Your task to perform on an android device: What is the capital of Germany? Image 0: 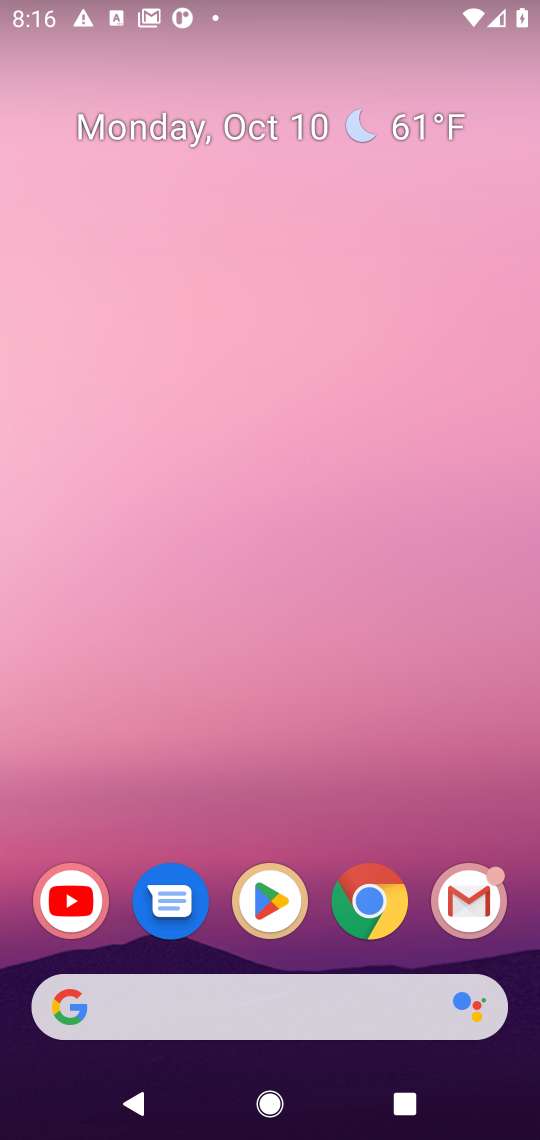
Step 0: click (277, 988)
Your task to perform on an android device: What is the capital of Germany? Image 1: 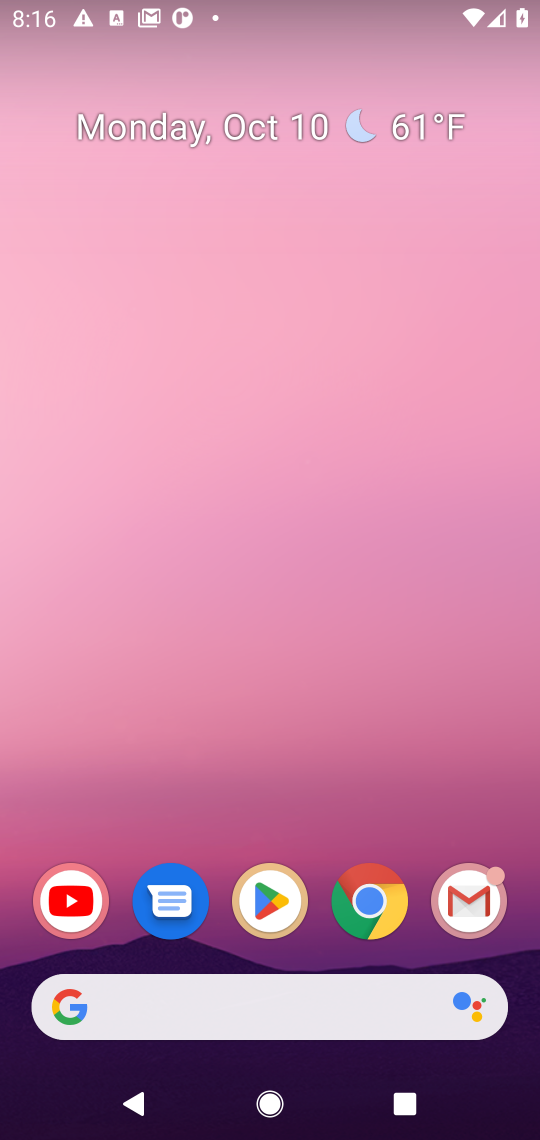
Step 1: click (277, 990)
Your task to perform on an android device: What is the capital of Germany? Image 2: 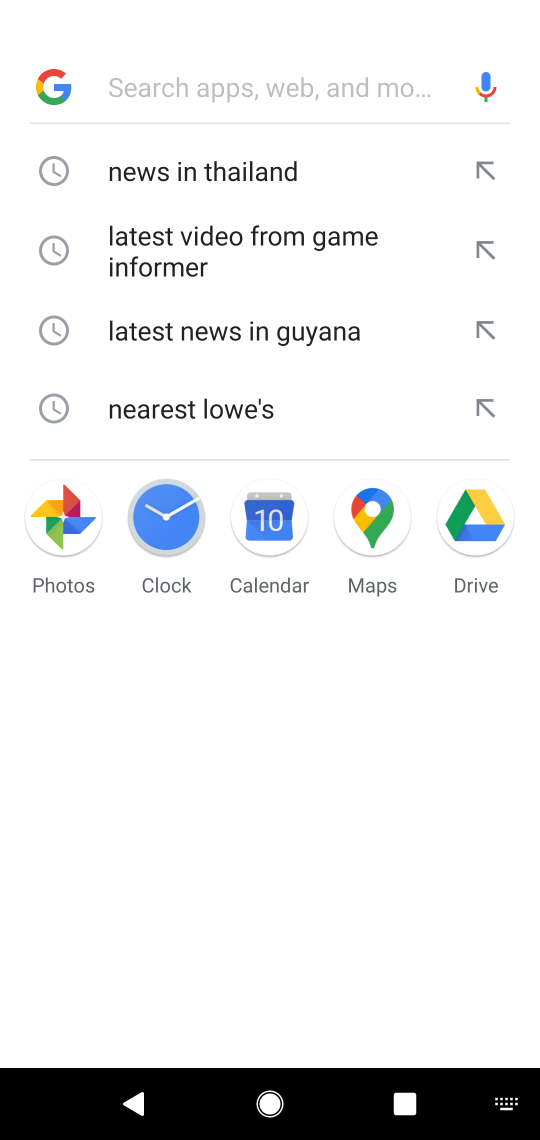
Step 2: type "the capital of Germany"
Your task to perform on an android device: What is the capital of Germany? Image 3: 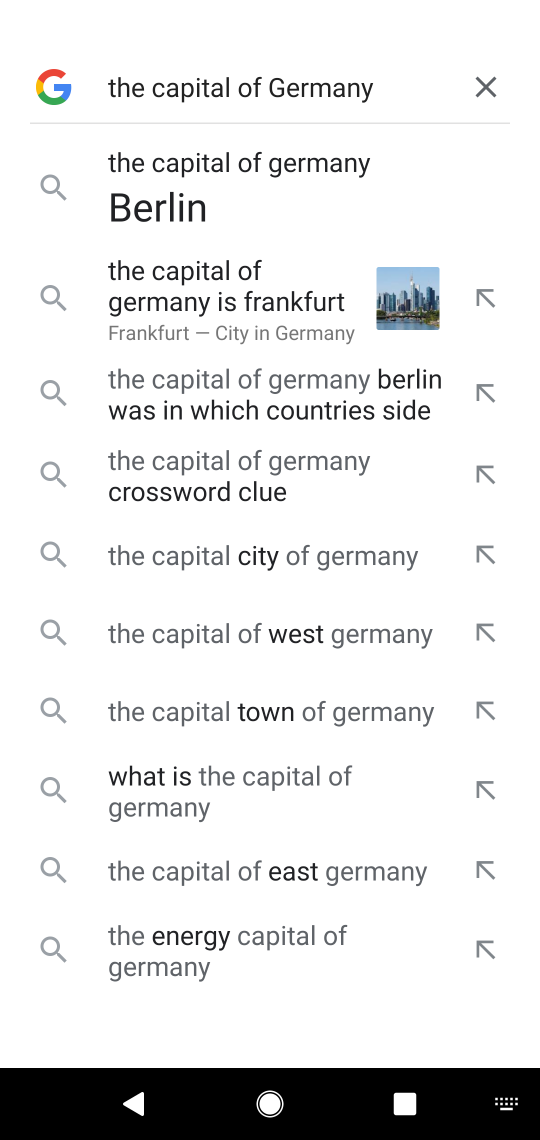
Step 3: click (198, 187)
Your task to perform on an android device: What is the capital of Germany? Image 4: 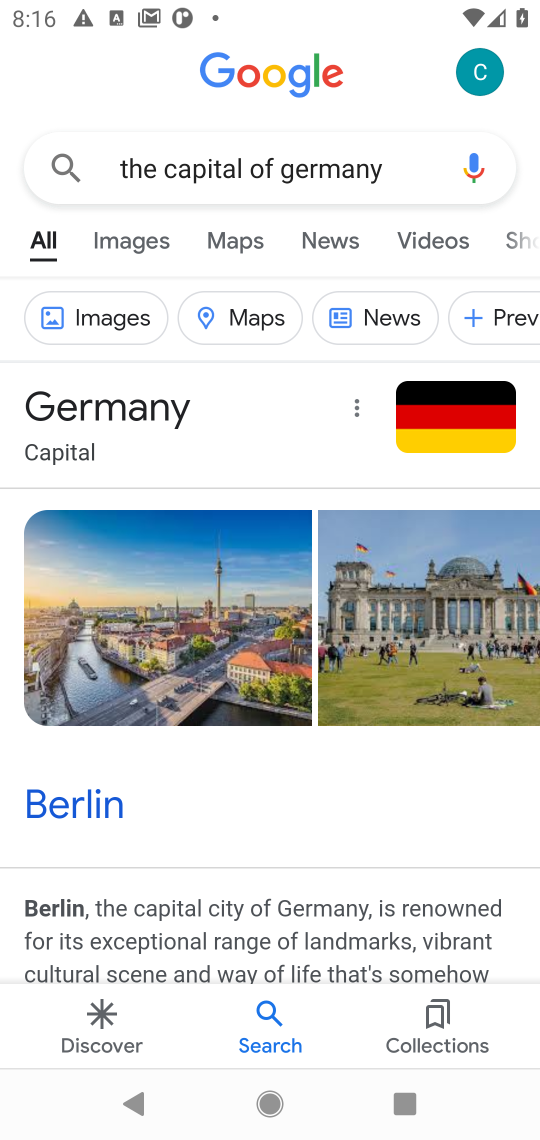
Step 4: drag from (294, 797) to (341, 357)
Your task to perform on an android device: What is the capital of Germany? Image 5: 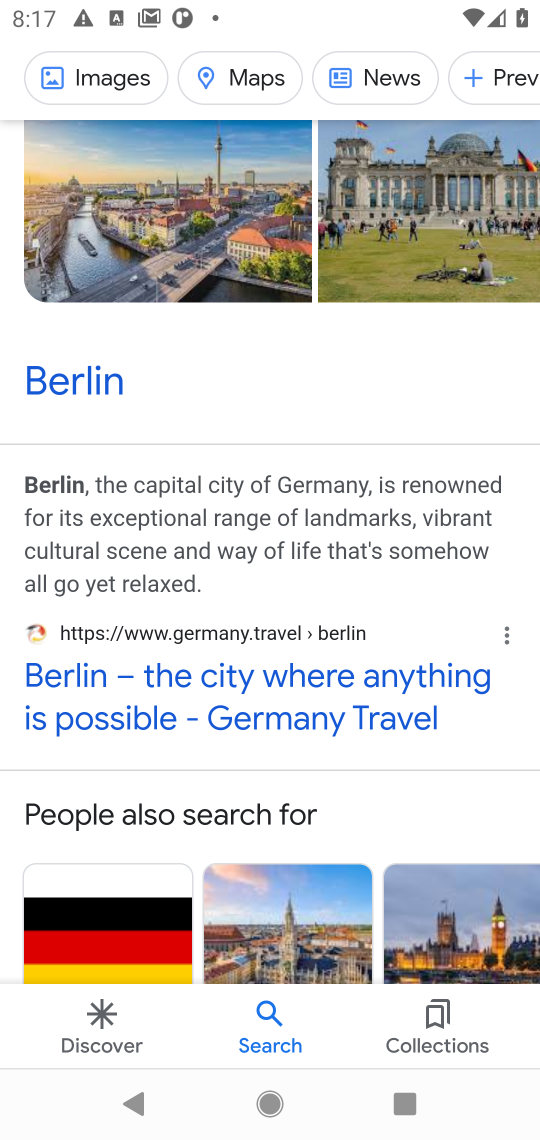
Step 5: drag from (435, 755) to (451, 451)
Your task to perform on an android device: What is the capital of Germany? Image 6: 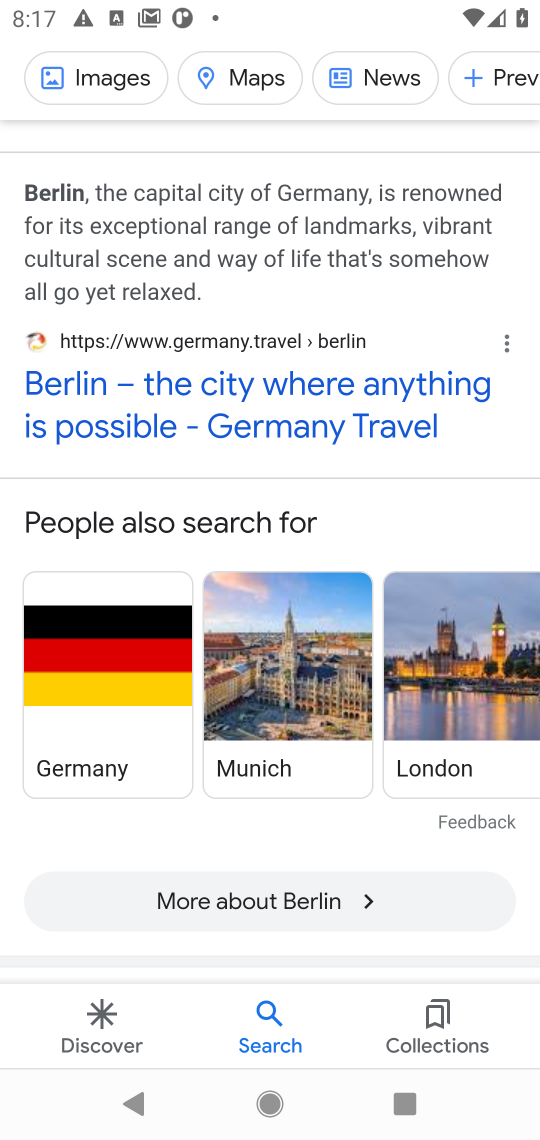
Step 6: drag from (384, 807) to (373, 380)
Your task to perform on an android device: What is the capital of Germany? Image 7: 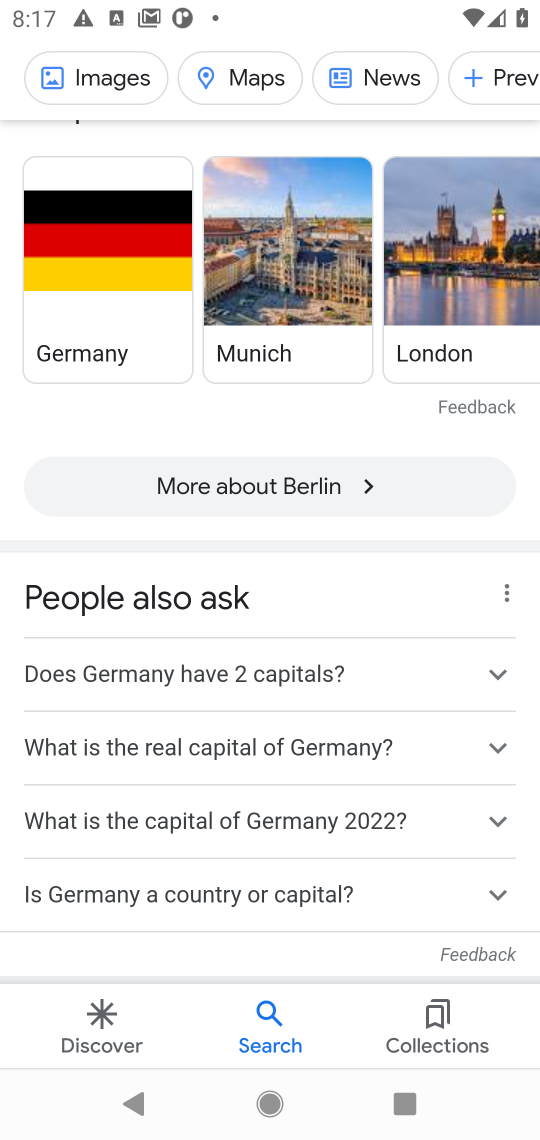
Step 7: drag from (392, 592) to (387, 231)
Your task to perform on an android device: What is the capital of Germany? Image 8: 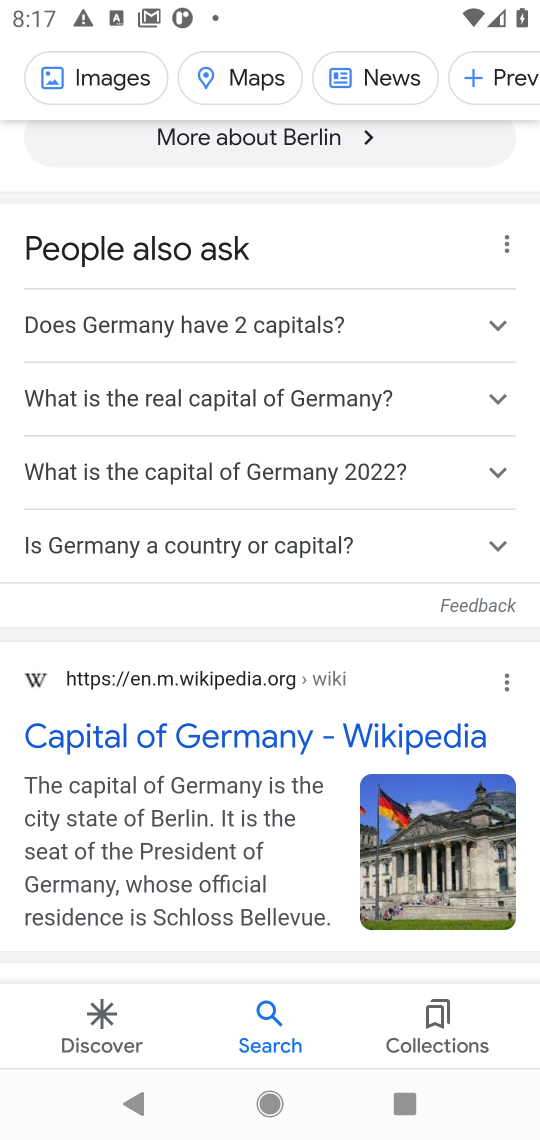
Step 8: drag from (396, 717) to (395, 201)
Your task to perform on an android device: What is the capital of Germany? Image 9: 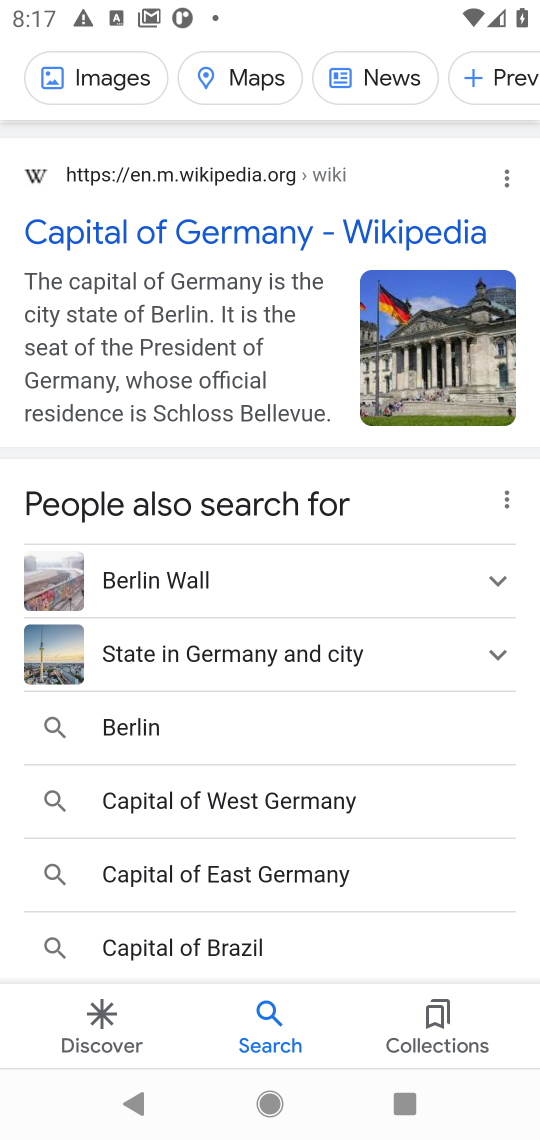
Step 9: drag from (437, 498) to (434, 439)
Your task to perform on an android device: What is the capital of Germany? Image 10: 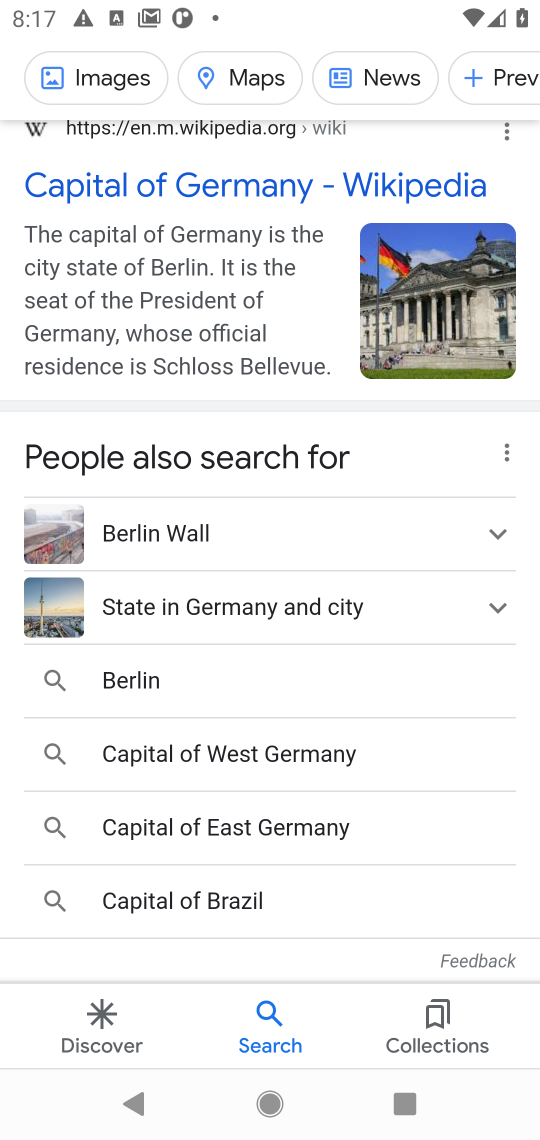
Step 10: drag from (408, 463) to (404, 198)
Your task to perform on an android device: What is the capital of Germany? Image 11: 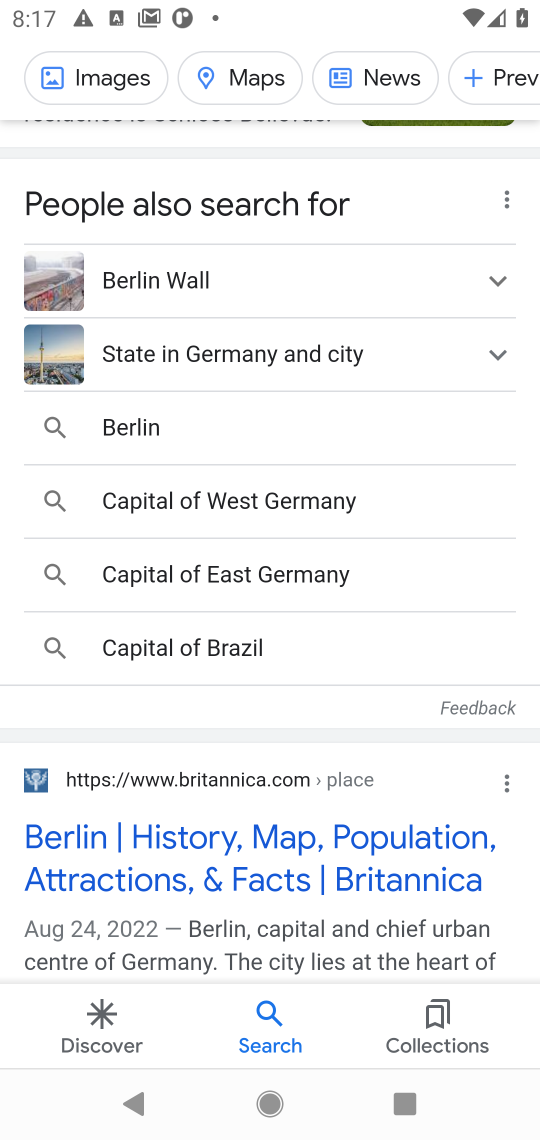
Step 11: click (379, 812)
Your task to perform on an android device: What is the capital of Germany? Image 12: 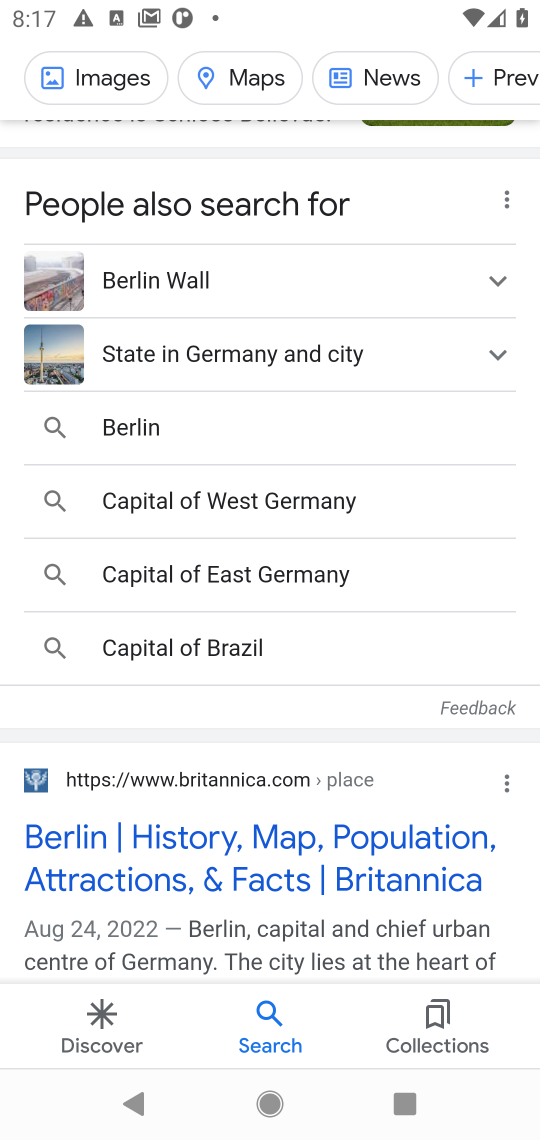
Step 12: drag from (385, 788) to (393, 626)
Your task to perform on an android device: What is the capital of Germany? Image 13: 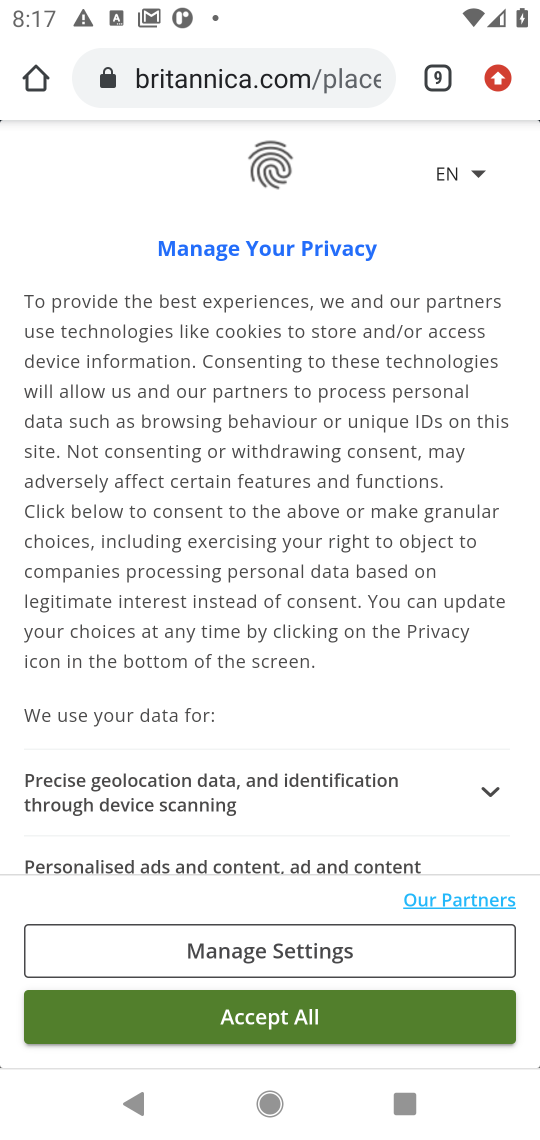
Step 13: click (272, 1020)
Your task to perform on an android device: What is the capital of Germany? Image 14: 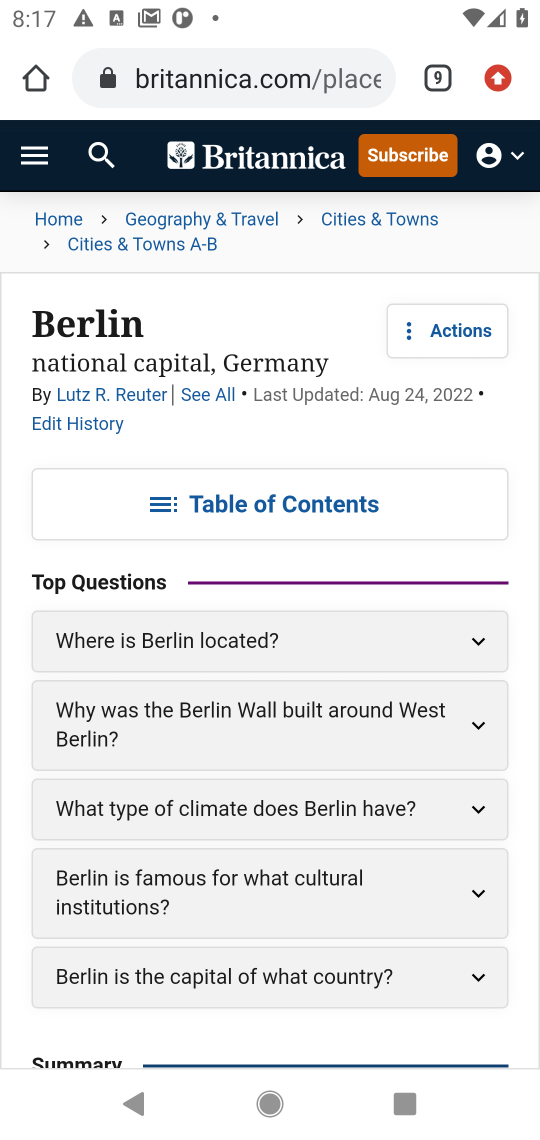
Step 14: drag from (422, 705) to (422, 268)
Your task to perform on an android device: What is the capital of Germany? Image 15: 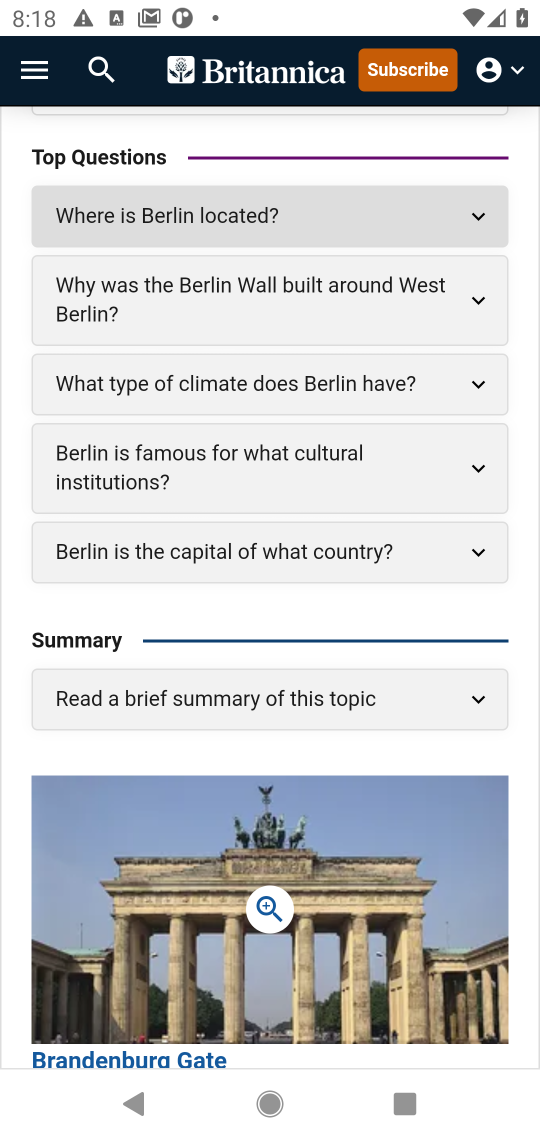
Step 15: drag from (526, 863) to (522, 242)
Your task to perform on an android device: What is the capital of Germany? Image 16: 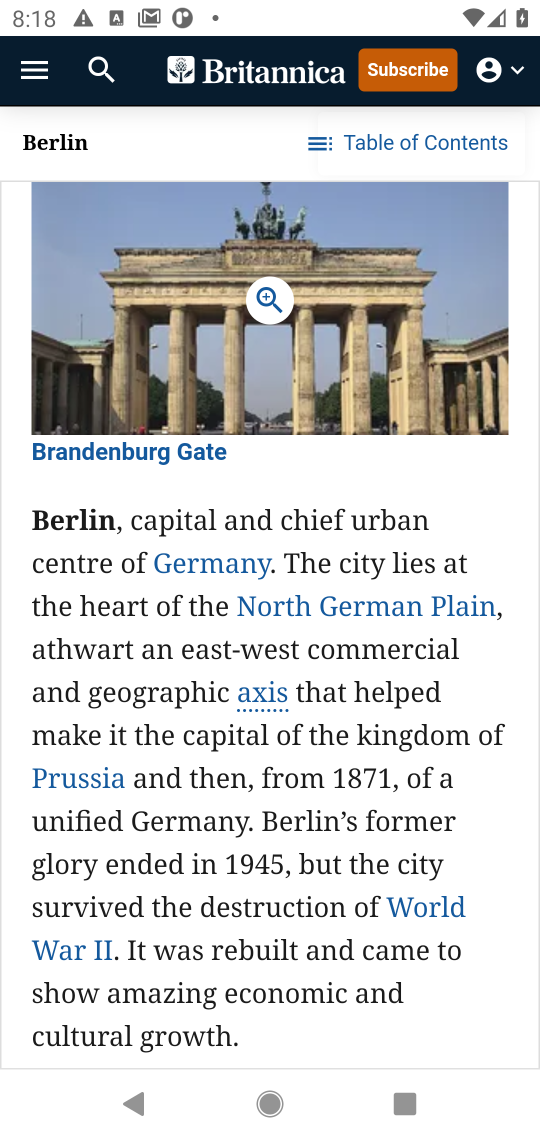
Step 16: drag from (461, 1006) to (454, 377)
Your task to perform on an android device: What is the capital of Germany? Image 17: 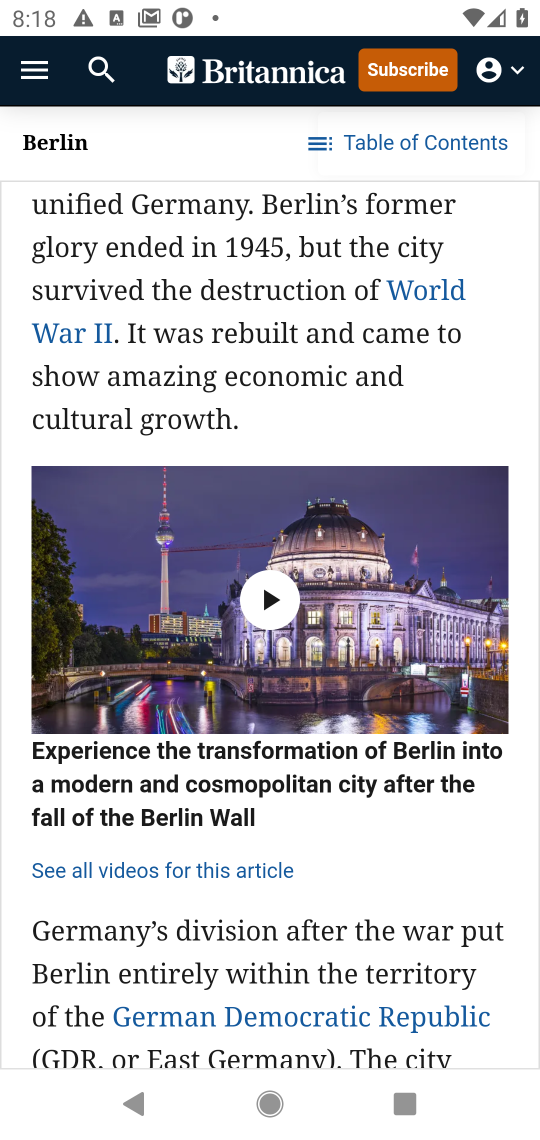
Step 17: drag from (359, 885) to (421, 479)
Your task to perform on an android device: What is the capital of Germany? Image 18: 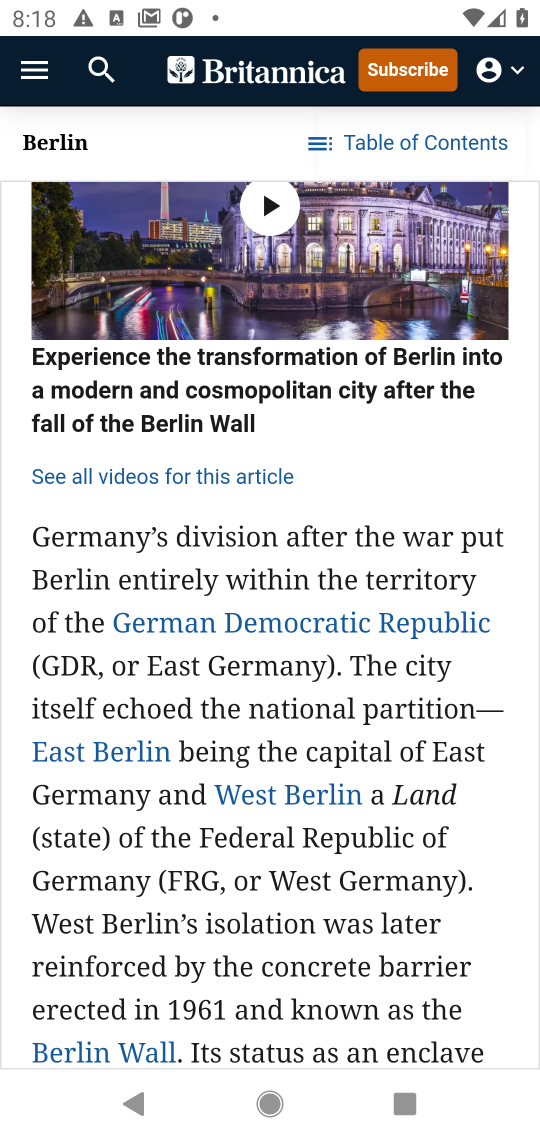
Step 18: drag from (485, 866) to (480, 498)
Your task to perform on an android device: What is the capital of Germany? Image 19: 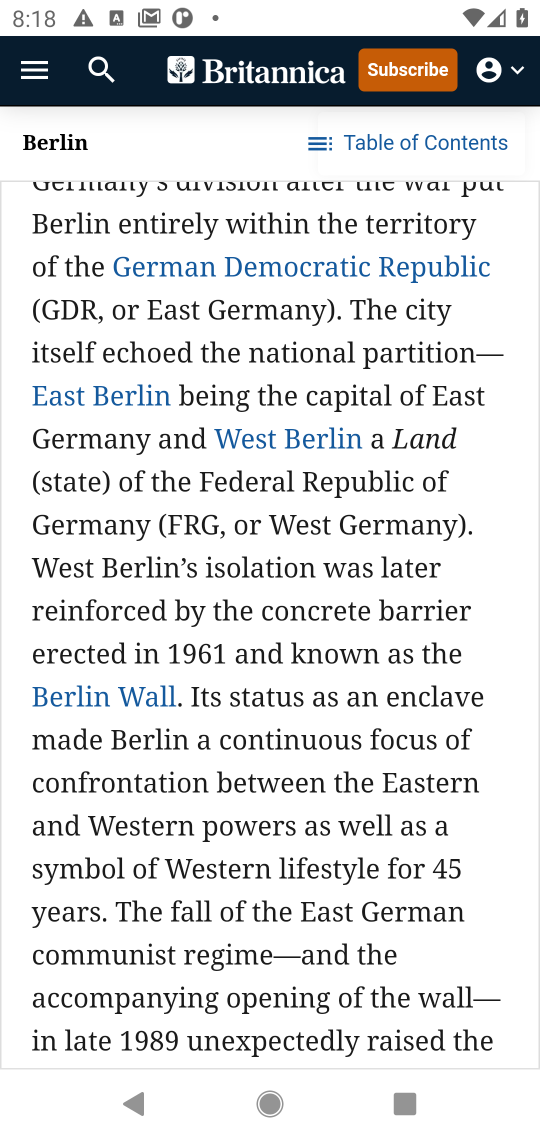
Step 19: drag from (450, 580) to (439, 440)
Your task to perform on an android device: What is the capital of Germany? Image 20: 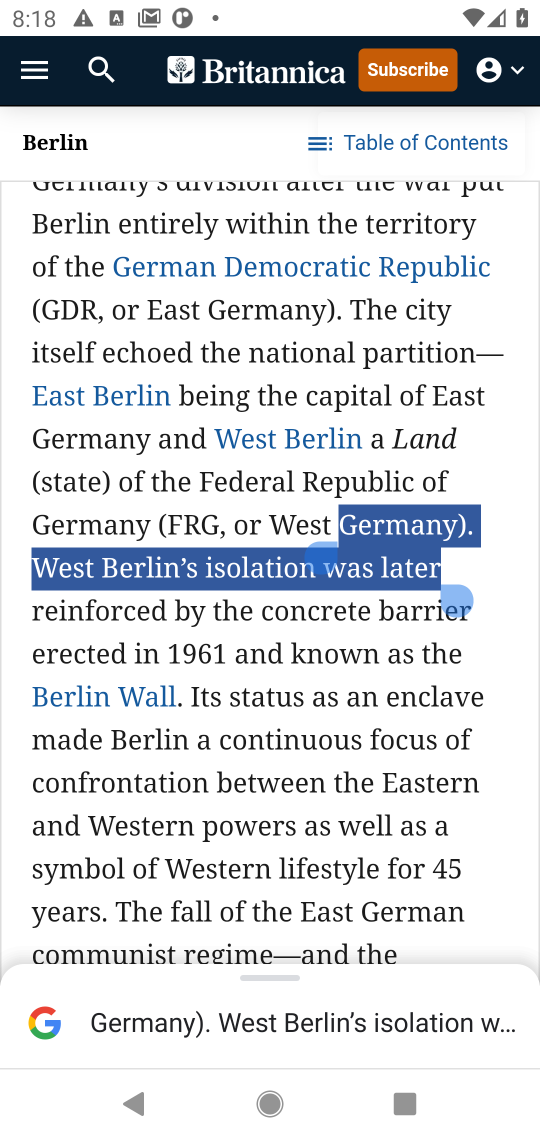
Step 20: click (446, 651)
Your task to perform on an android device: What is the capital of Germany? Image 21: 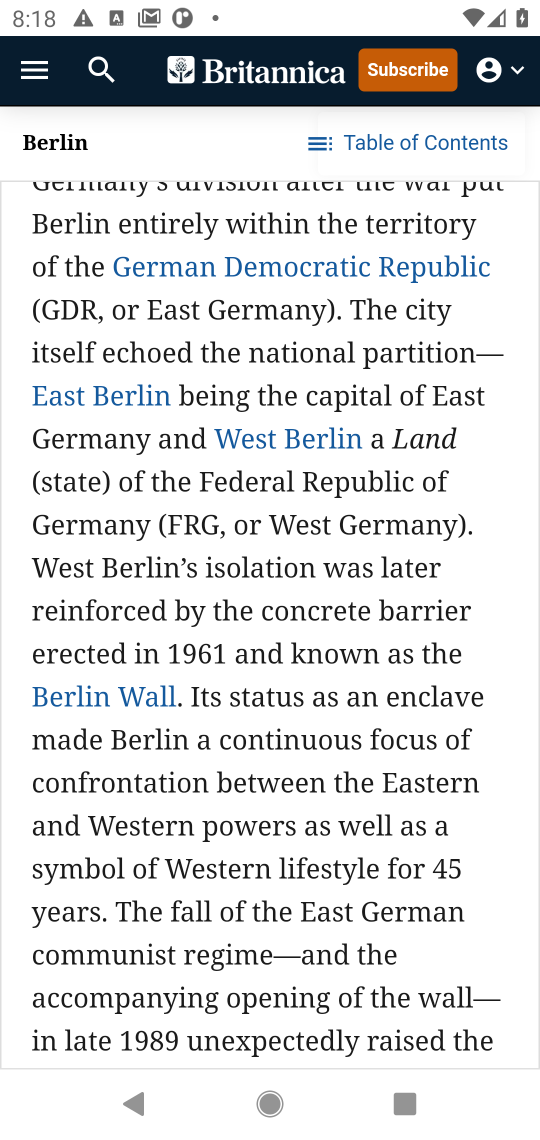
Step 21: task complete